Your task to perform on an android device: find photos in the google photos app Image 0: 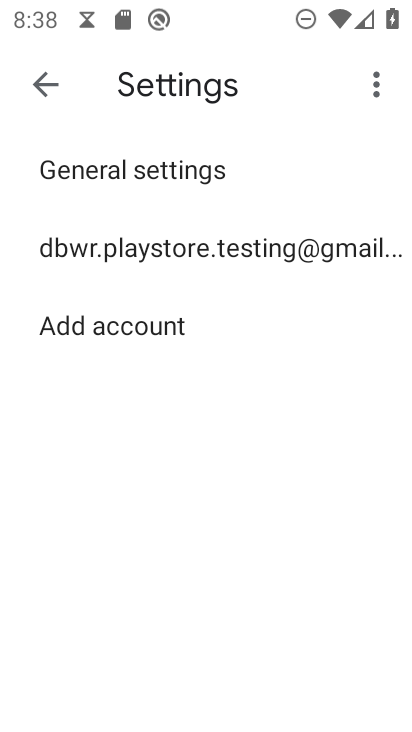
Step 0: press home button
Your task to perform on an android device: find photos in the google photos app Image 1: 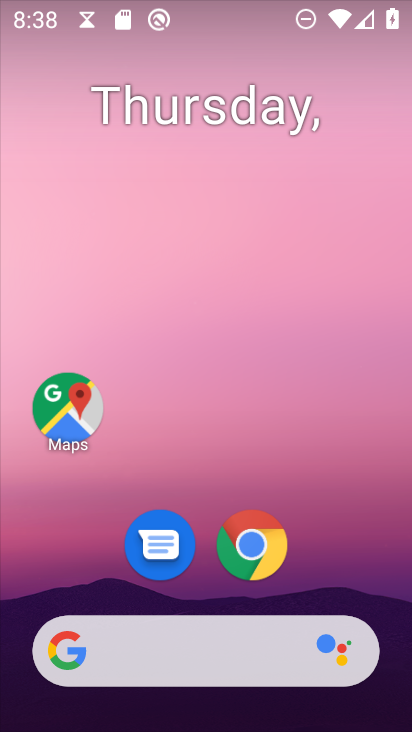
Step 1: drag from (338, 574) to (203, 149)
Your task to perform on an android device: find photos in the google photos app Image 2: 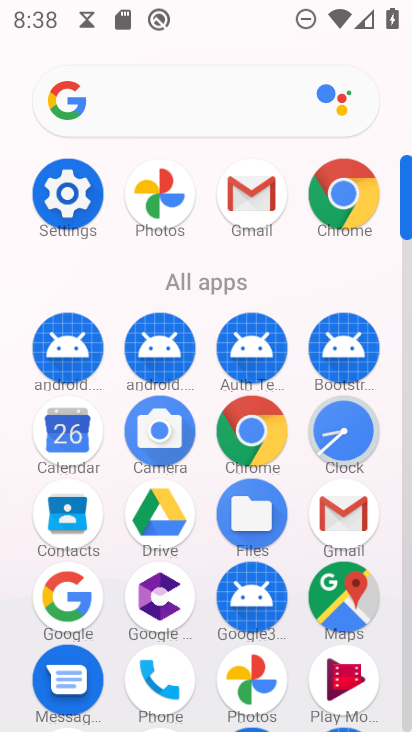
Step 2: click (162, 191)
Your task to perform on an android device: find photos in the google photos app Image 3: 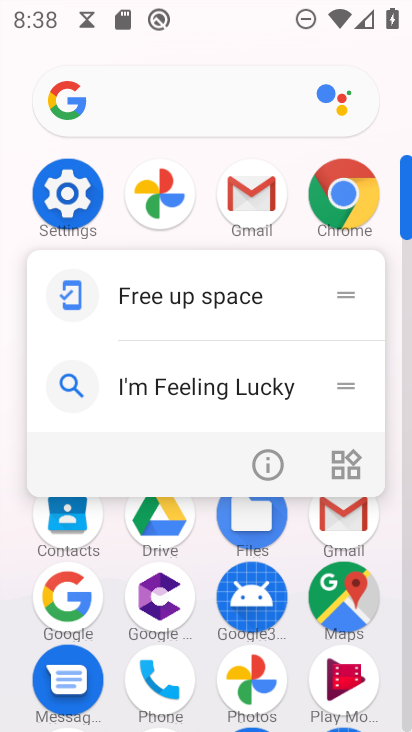
Step 3: click (162, 191)
Your task to perform on an android device: find photos in the google photos app Image 4: 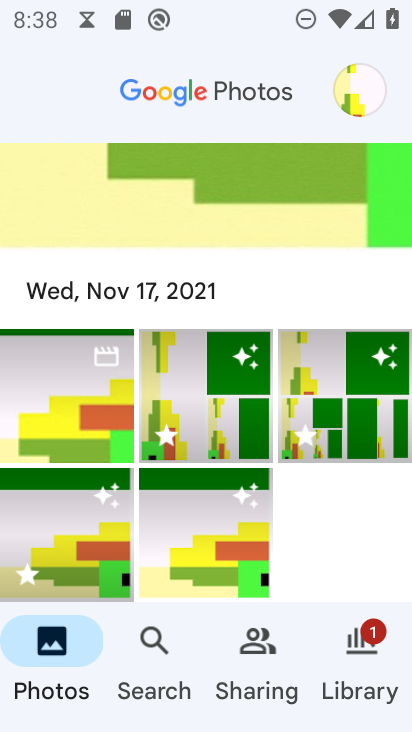
Step 4: task complete